Your task to perform on an android device: Go to network settings Image 0: 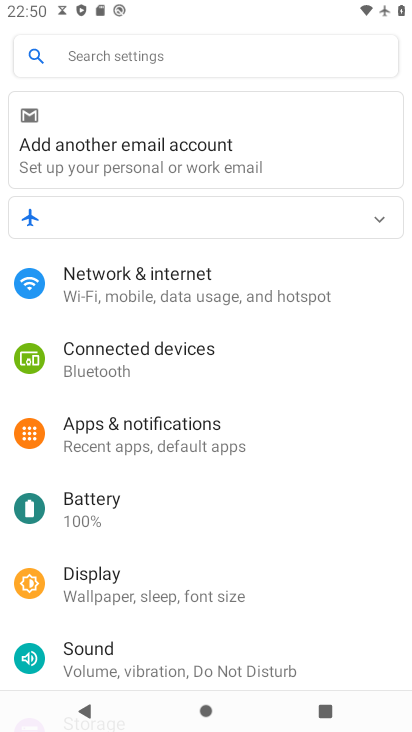
Step 0: press back button
Your task to perform on an android device: Go to network settings Image 1: 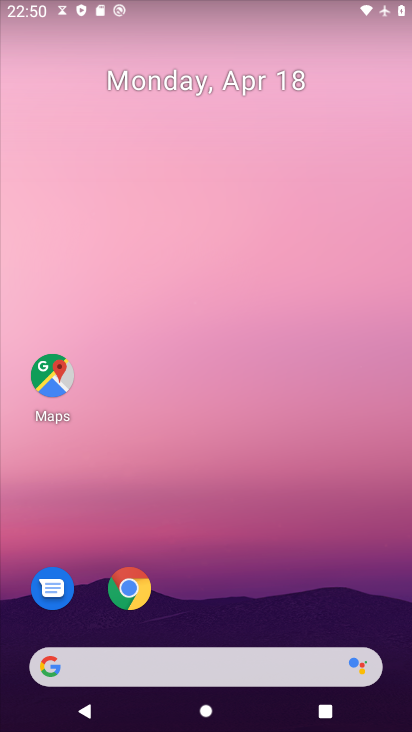
Step 1: drag from (348, 541) to (153, 21)
Your task to perform on an android device: Go to network settings Image 2: 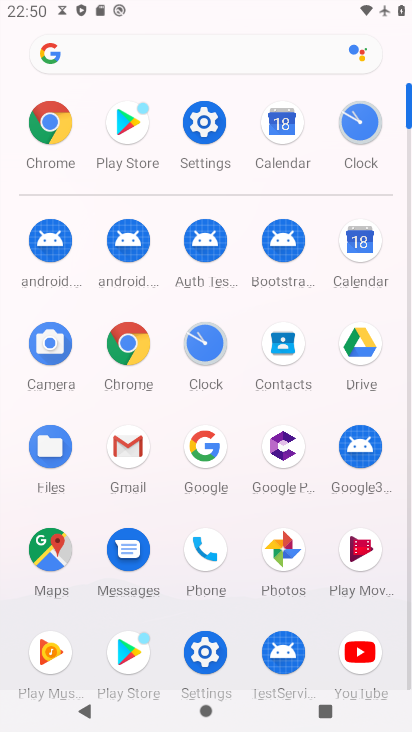
Step 2: drag from (5, 526) to (15, 728)
Your task to perform on an android device: Go to network settings Image 3: 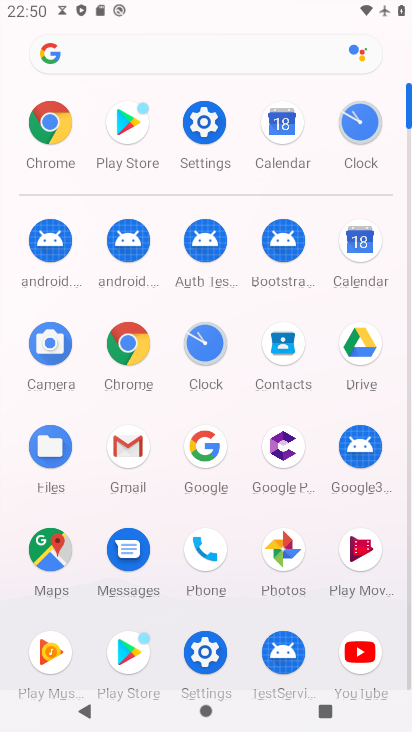
Step 3: drag from (15, 484) to (4, 279)
Your task to perform on an android device: Go to network settings Image 4: 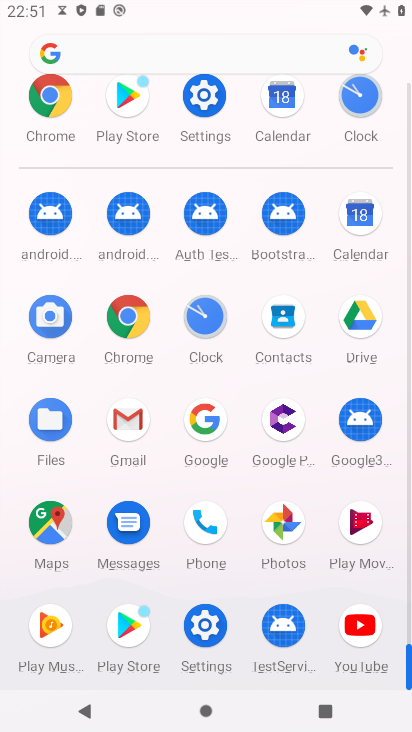
Step 4: click (205, 93)
Your task to perform on an android device: Go to network settings Image 5: 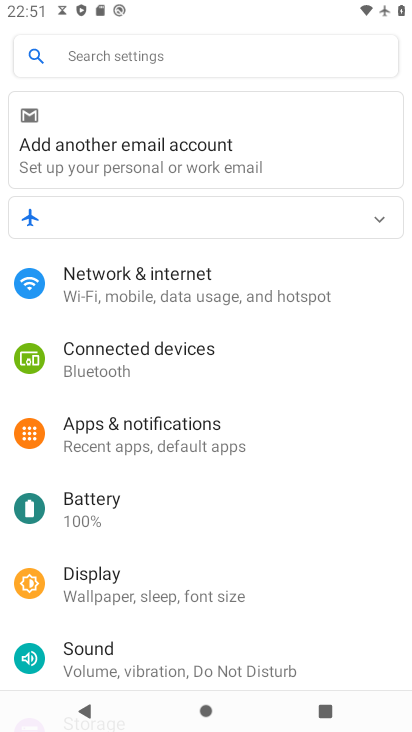
Step 5: click (164, 276)
Your task to perform on an android device: Go to network settings Image 6: 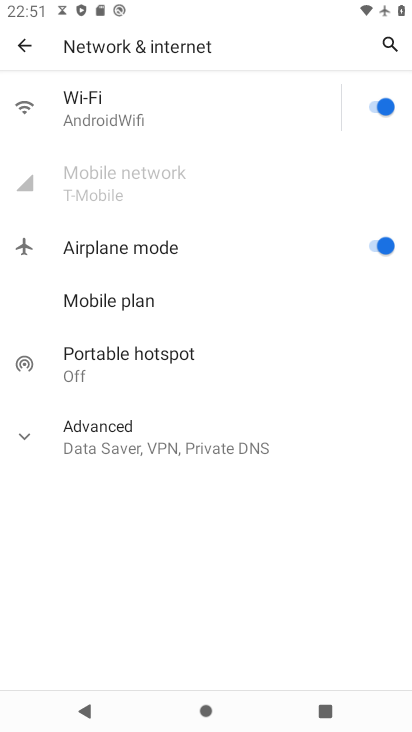
Step 6: task complete